Your task to perform on an android device: change your default location settings in chrome Image 0: 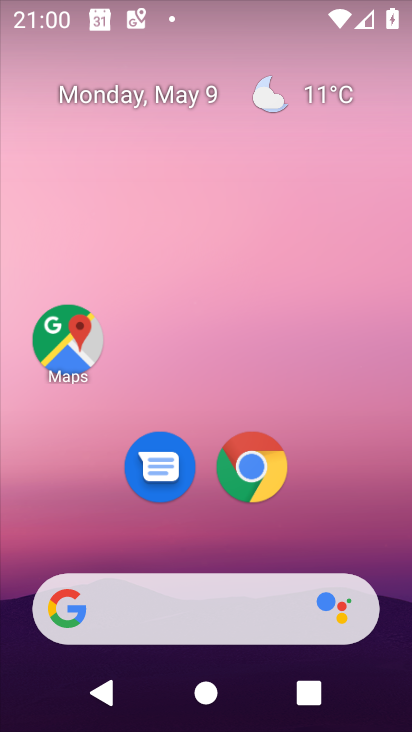
Step 0: drag from (287, 526) to (316, 278)
Your task to perform on an android device: change your default location settings in chrome Image 1: 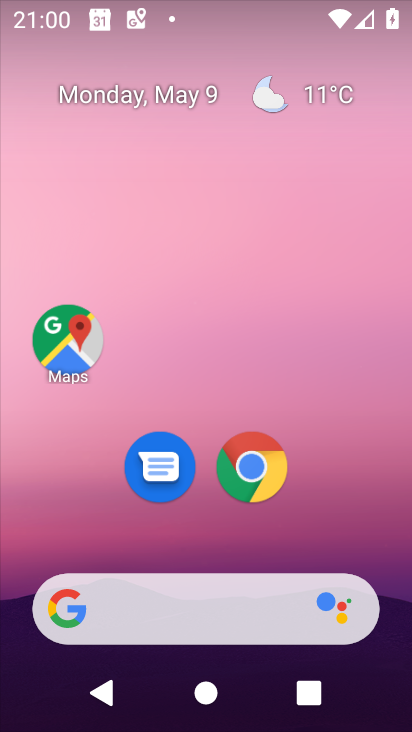
Step 1: click (252, 457)
Your task to perform on an android device: change your default location settings in chrome Image 2: 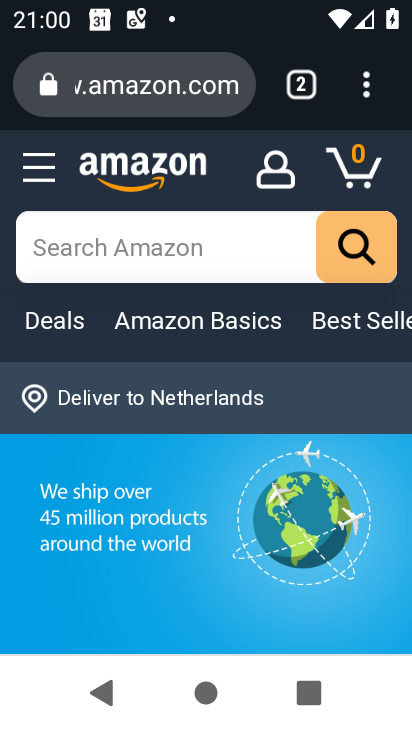
Step 2: click (361, 91)
Your task to perform on an android device: change your default location settings in chrome Image 3: 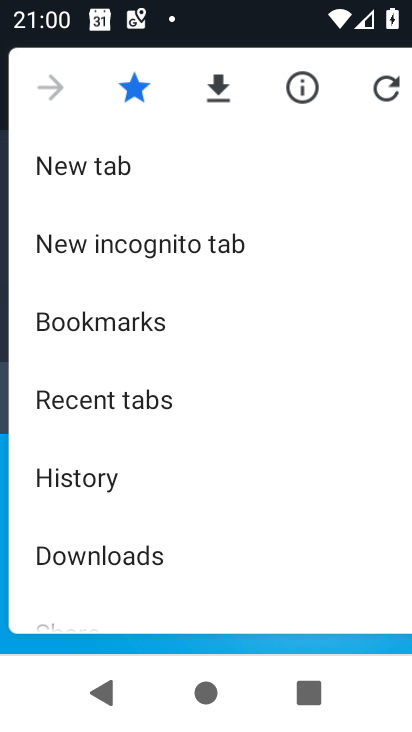
Step 3: drag from (156, 539) to (199, 208)
Your task to perform on an android device: change your default location settings in chrome Image 4: 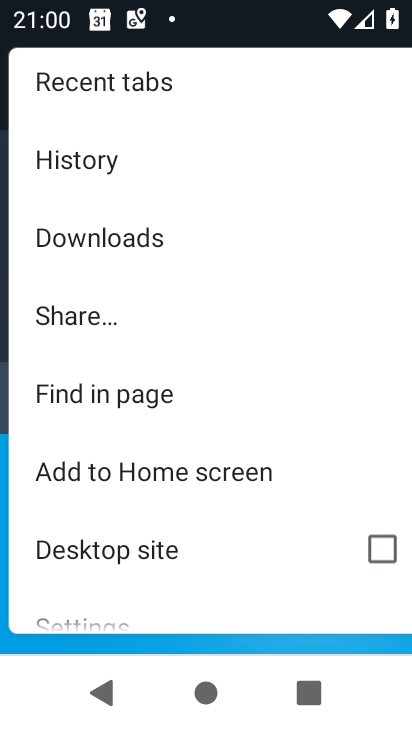
Step 4: click (113, 632)
Your task to perform on an android device: change your default location settings in chrome Image 5: 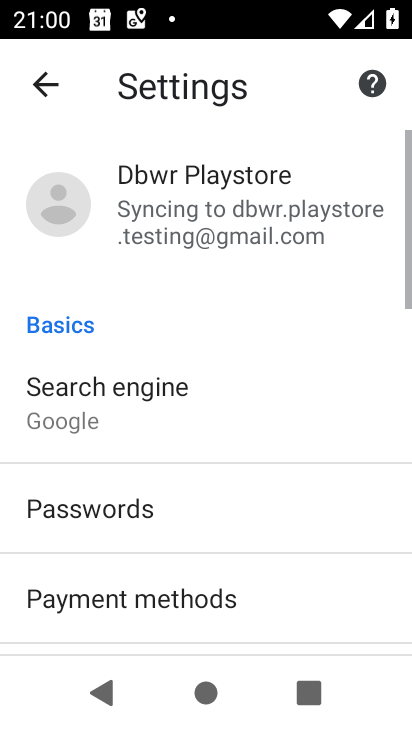
Step 5: drag from (180, 513) to (270, 75)
Your task to perform on an android device: change your default location settings in chrome Image 6: 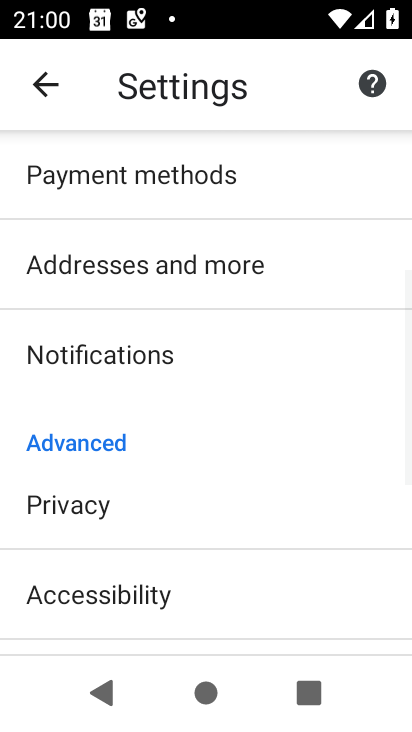
Step 6: drag from (218, 582) to (286, 183)
Your task to perform on an android device: change your default location settings in chrome Image 7: 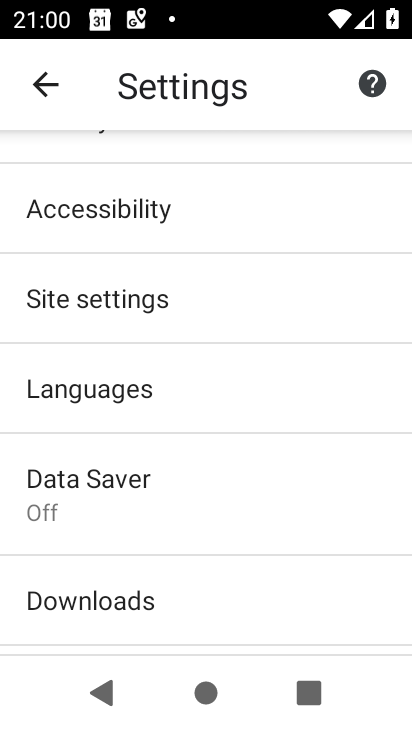
Step 7: drag from (163, 525) to (200, 349)
Your task to perform on an android device: change your default location settings in chrome Image 8: 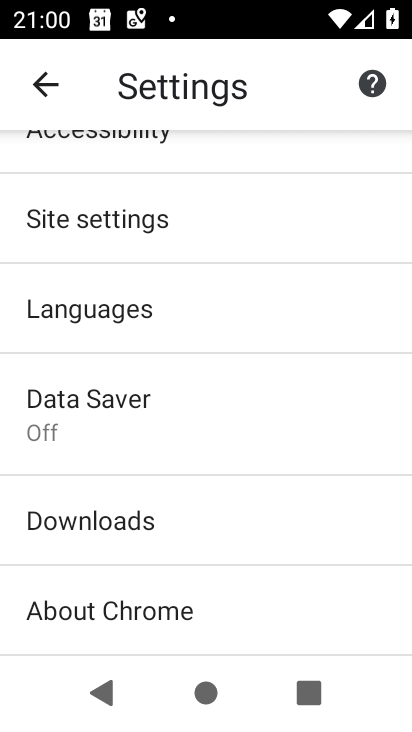
Step 8: drag from (172, 216) to (190, 385)
Your task to perform on an android device: change your default location settings in chrome Image 9: 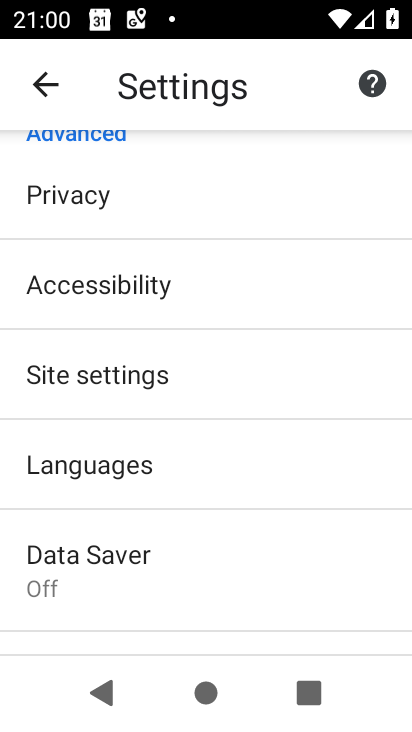
Step 9: click (163, 367)
Your task to perform on an android device: change your default location settings in chrome Image 10: 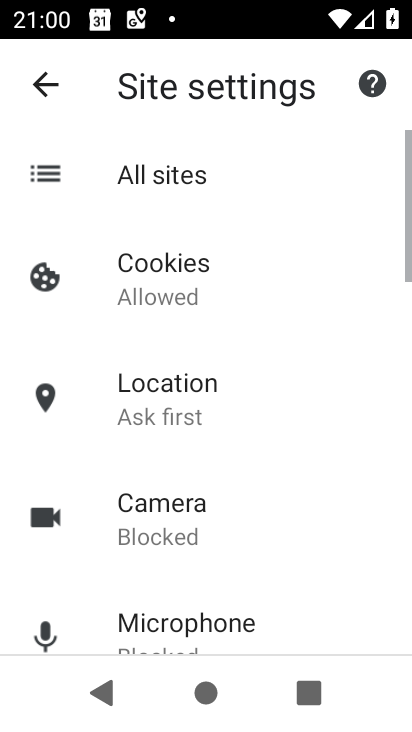
Step 10: drag from (226, 532) to (253, 293)
Your task to perform on an android device: change your default location settings in chrome Image 11: 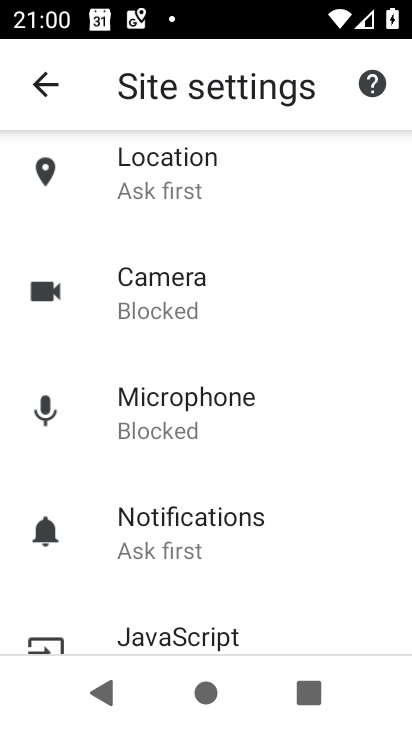
Step 11: click (202, 189)
Your task to perform on an android device: change your default location settings in chrome Image 12: 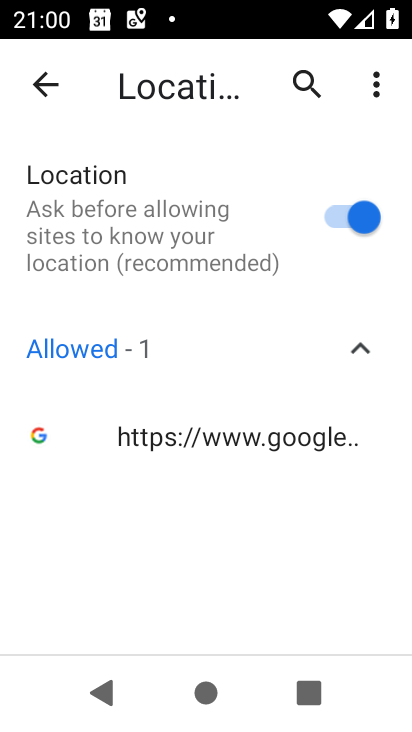
Step 12: click (327, 202)
Your task to perform on an android device: change your default location settings in chrome Image 13: 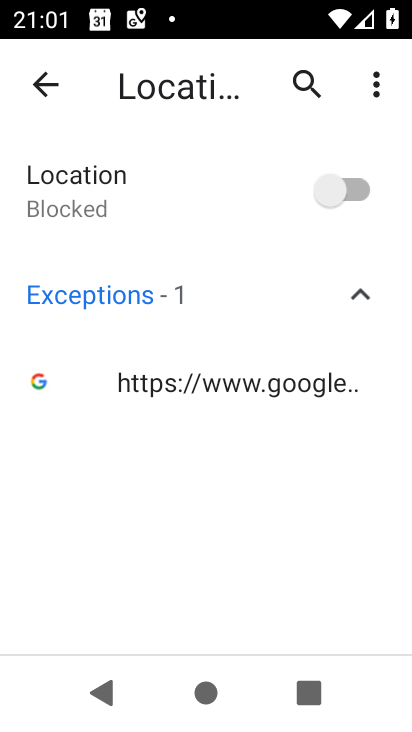
Step 13: task complete